Your task to perform on an android device: What's the weather? Image 0: 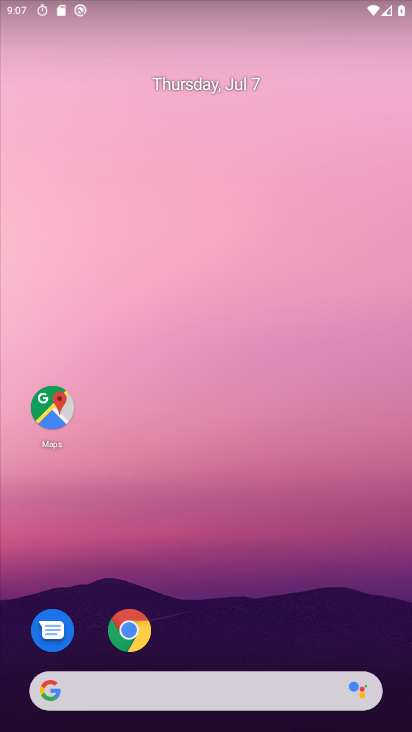
Step 0: click (108, 695)
Your task to perform on an android device: What's the weather? Image 1: 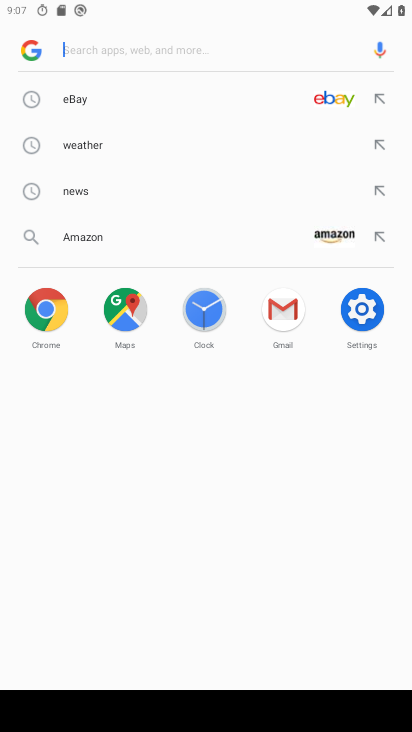
Step 1: type "What's the weather?"
Your task to perform on an android device: What's the weather? Image 2: 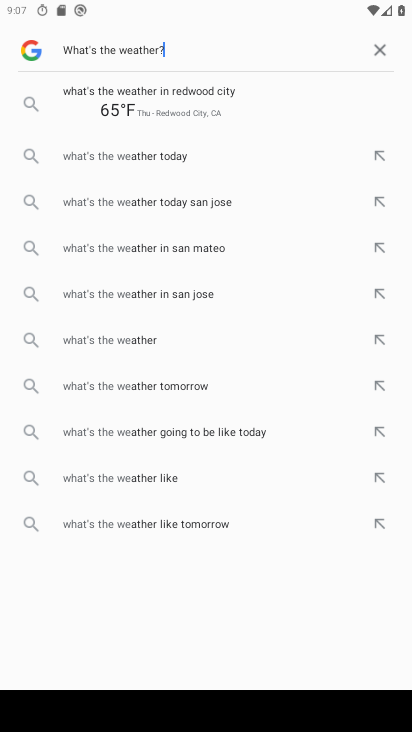
Step 2: type ""
Your task to perform on an android device: What's the weather? Image 3: 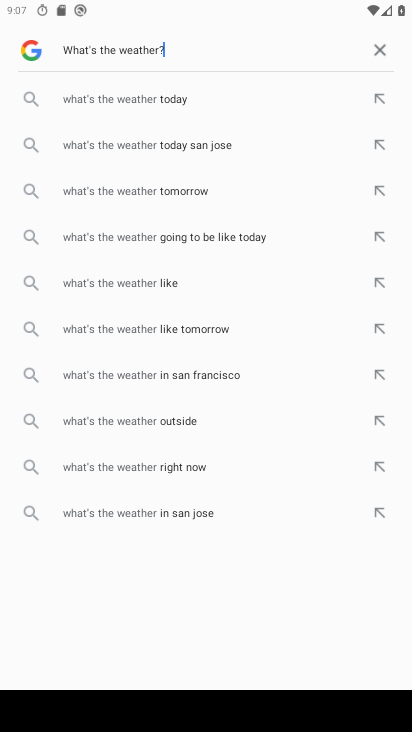
Step 3: type ""
Your task to perform on an android device: What's the weather? Image 4: 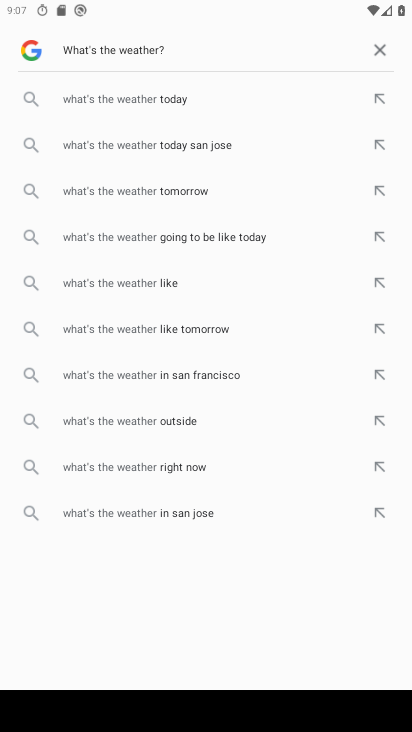
Step 4: task complete